Your task to perform on an android device: Open battery settings Image 0: 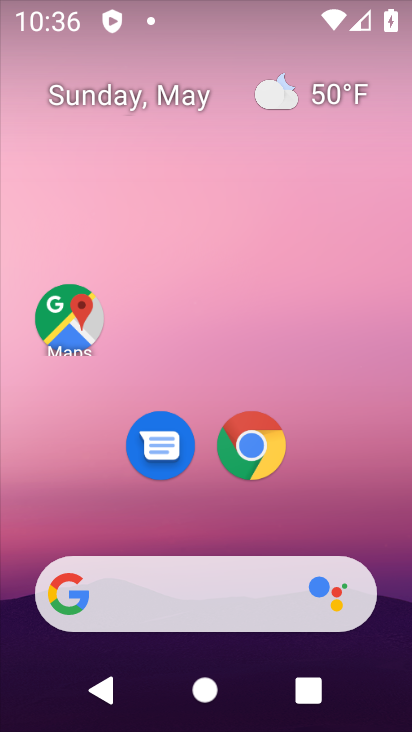
Step 0: drag from (289, 530) to (307, 230)
Your task to perform on an android device: Open battery settings Image 1: 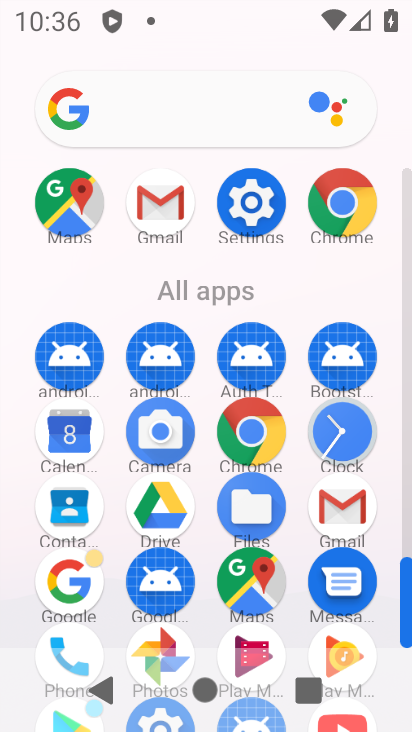
Step 1: click (240, 219)
Your task to perform on an android device: Open battery settings Image 2: 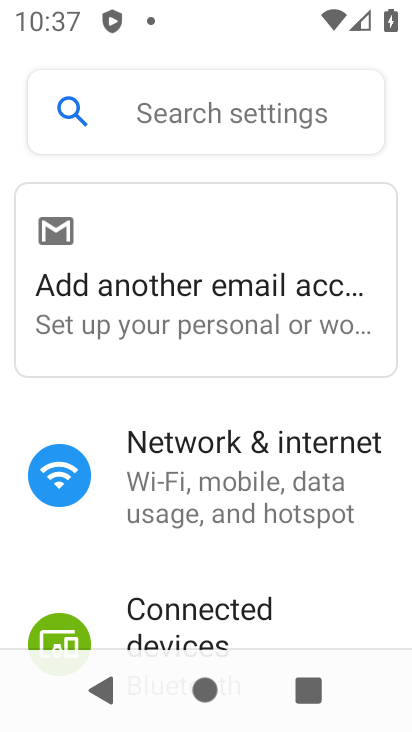
Step 2: drag from (234, 557) to (332, 173)
Your task to perform on an android device: Open battery settings Image 3: 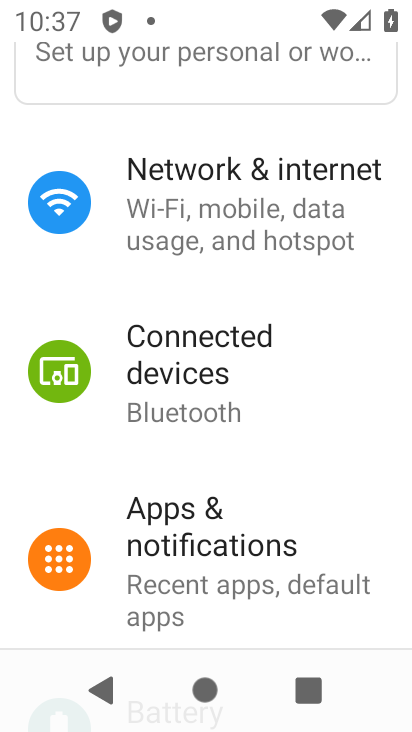
Step 3: drag from (224, 548) to (305, 105)
Your task to perform on an android device: Open battery settings Image 4: 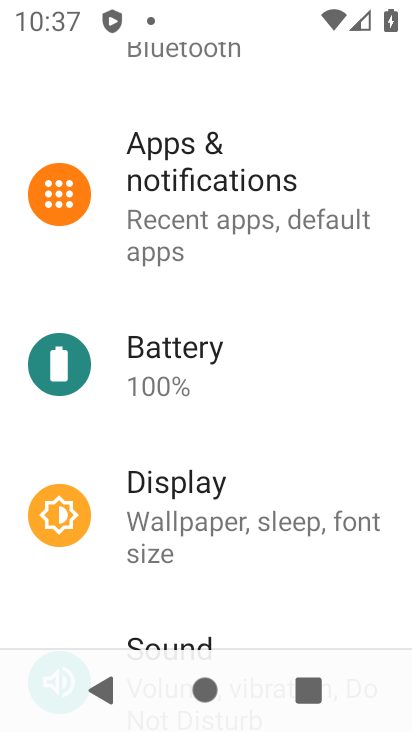
Step 4: click (176, 377)
Your task to perform on an android device: Open battery settings Image 5: 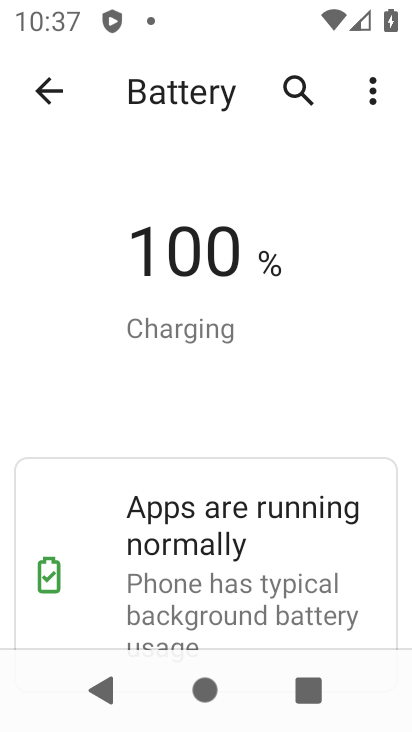
Step 5: task complete